Your task to perform on an android device: check android version Image 0: 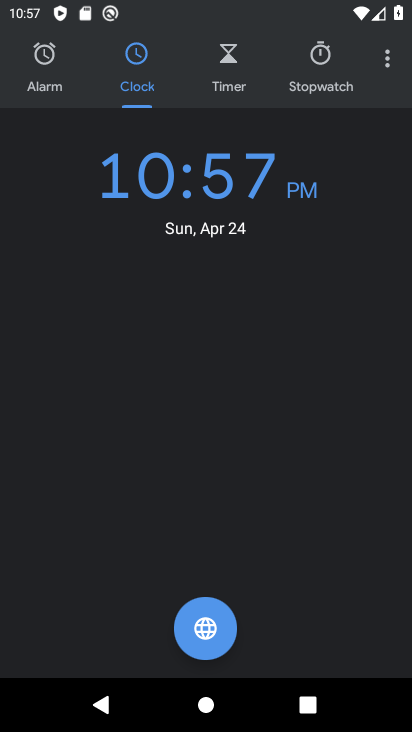
Step 0: press back button
Your task to perform on an android device: check android version Image 1: 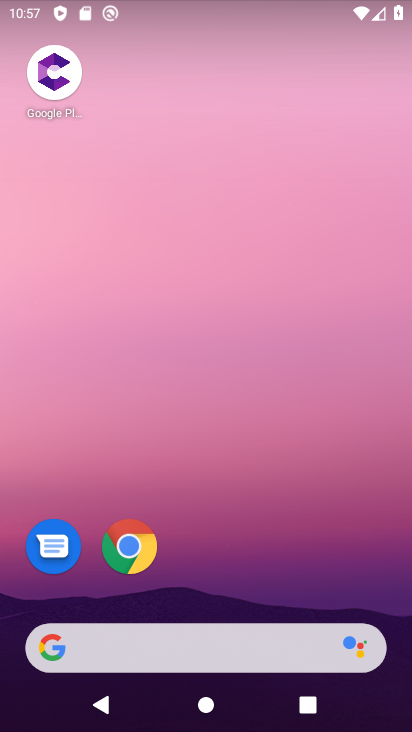
Step 1: drag from (211, 558) to (308, 72)
Your task to perform on an android device: check android version Image 2: 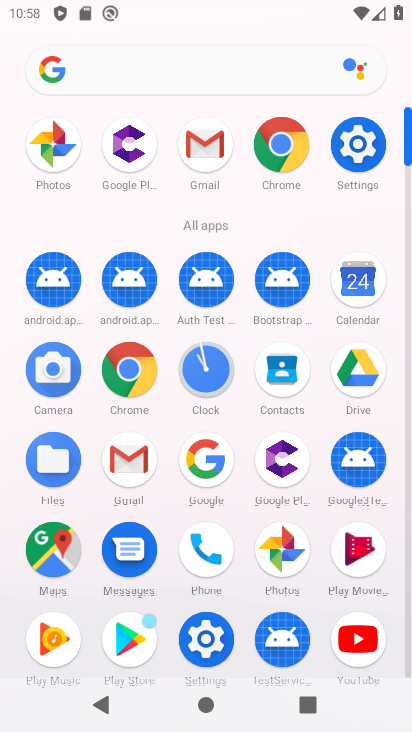
Step 2: click (356, 141)
Your task to perform on an android device: check android version Image 3: 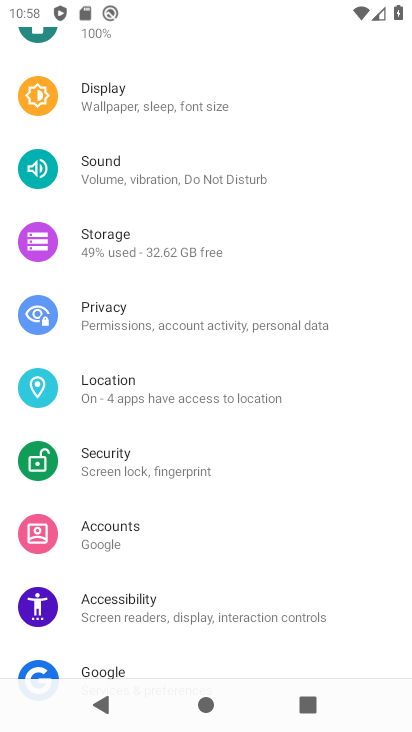
Step 3: drag from (179, 437) to (215, 338)
Your task to perform on an android device: check android version Image 4: 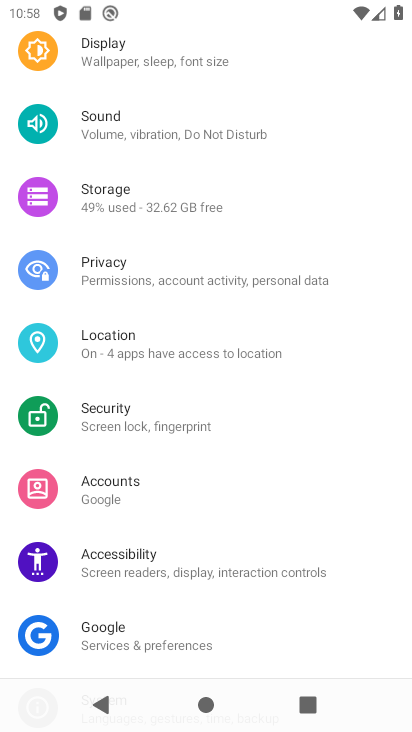
Step 4: drag from (177, 461) to (201, 356)
Your task to perform on an android device: check android version Image 5: 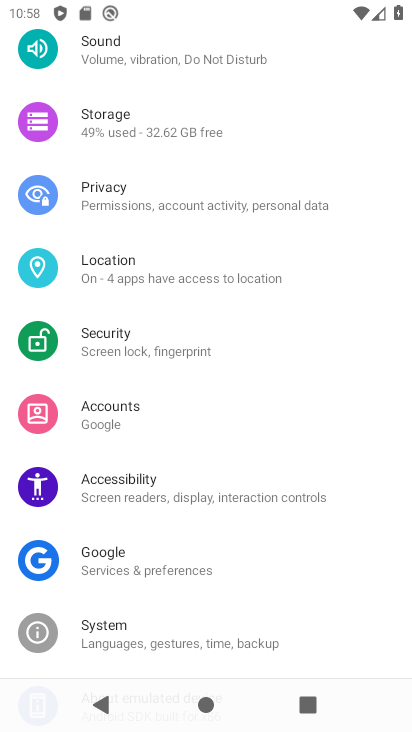
Step 5: drag from (158, 531) to (198, 426)
Your task to perform on an android device: check android version Image 6: 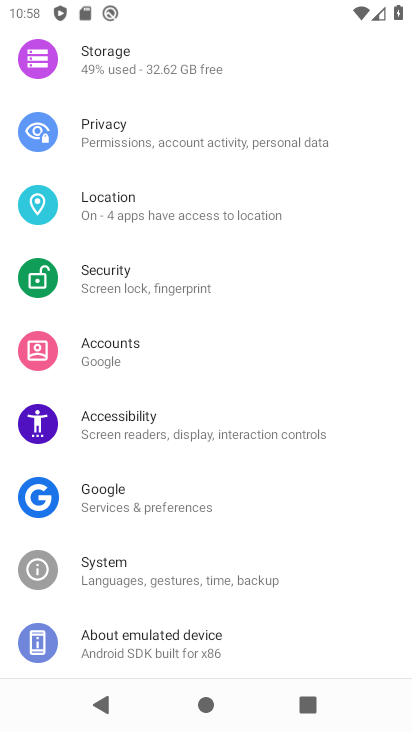
Step 6: drag from (154, 531) to (205, 418)
Your task to perform on an android device: check android version Image 7: 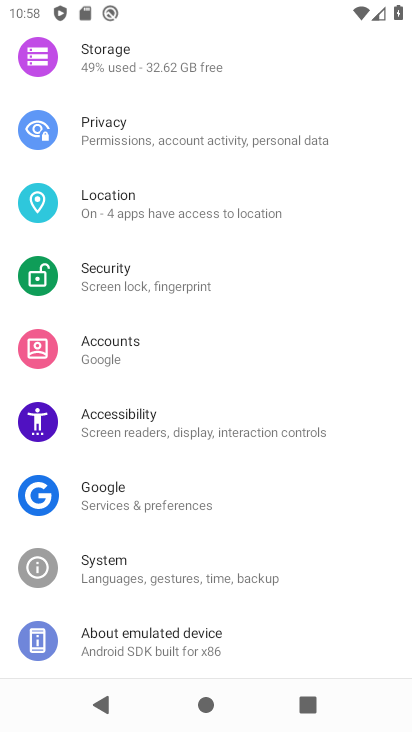
Step 7: click (137, 646)
Your task to perform on an android device: check android version Image 8: 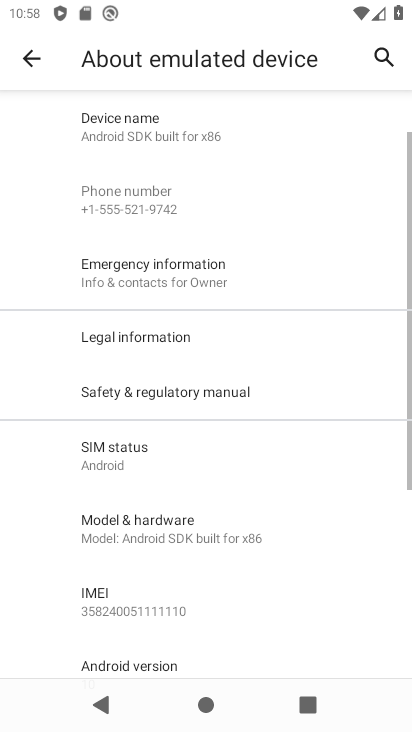
Step 8: drag from (174, 487) to (216, 407)
Your task to perform on an android device: check android version Image 9: 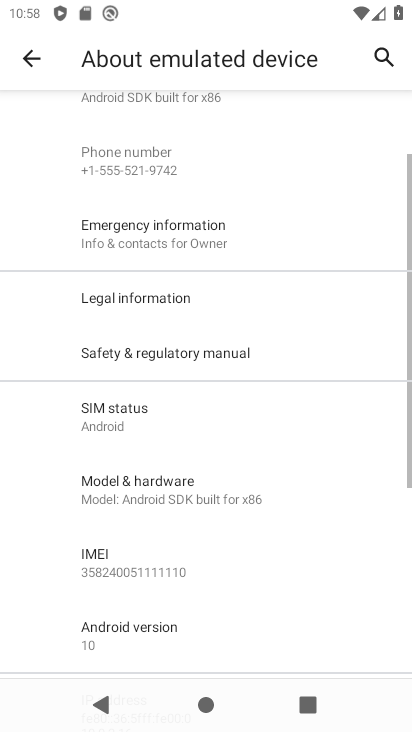
Step 9: drag from (162, 529) to (213, 443)
Your task to perform on an android device: check android version Image 10: 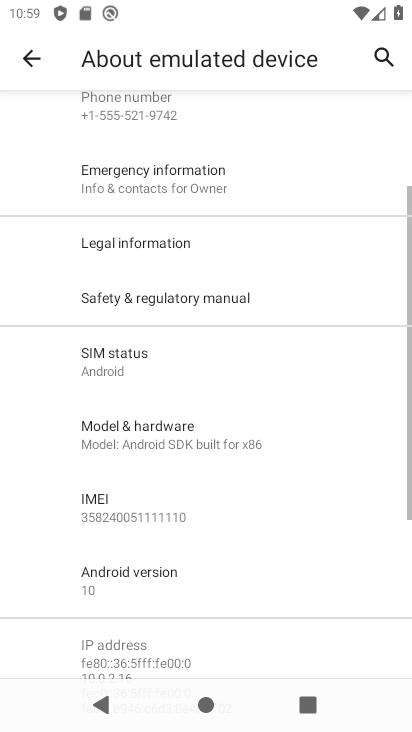
Step 10: click (157, 576)
Your task to perform on an android device: check android version Image 11: 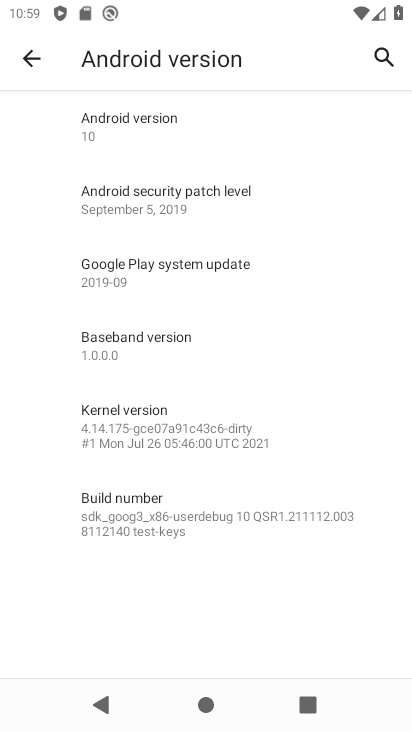
Step 11: task complete